Your task to perform on an android device: turn pop-ups off in chrome Image 0: 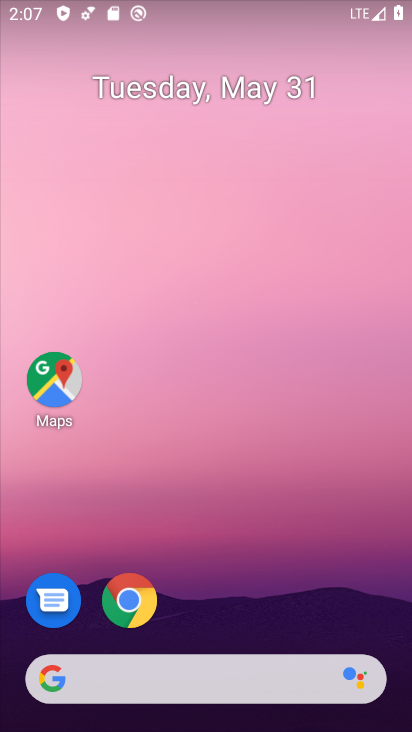
Step 0: click (125, 591)
Your task to perform on an android device: turn pop-ups off in chrome Image 1: 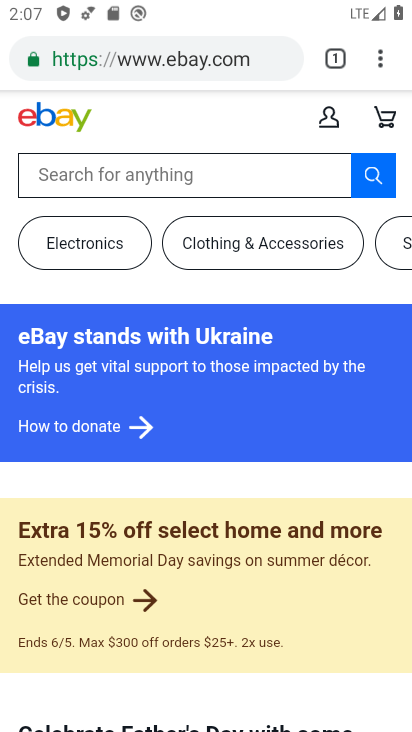
Step 1: click (338, 57)
Your task to perform on an android device: turn pop-ups off in chrome Image 2: 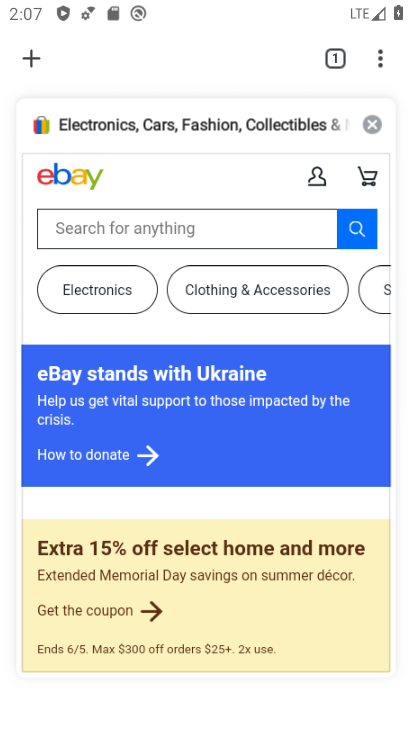
Step 2: click (366, 122)
Your task to perform on an android device: turn pop-ups off in chrome Image 3: 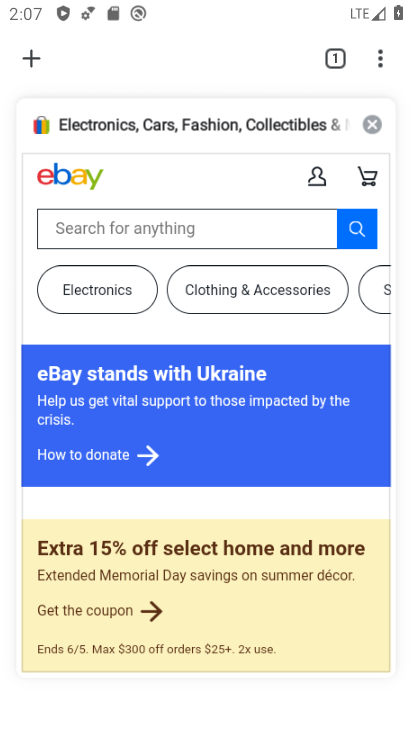
Step 3: click (24, 63)
Your task to perform on an android device: turn pop-ups off in chrome Image 4: 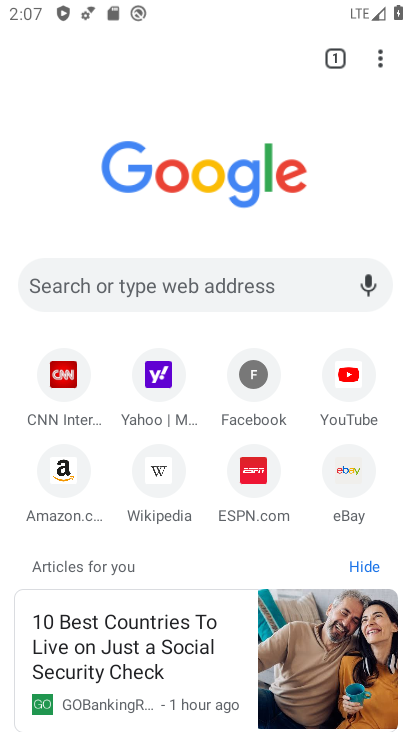
Step 4: click (375, 59)
Your task to perform on an android device: turn pop-ups off in chrome Image 5: 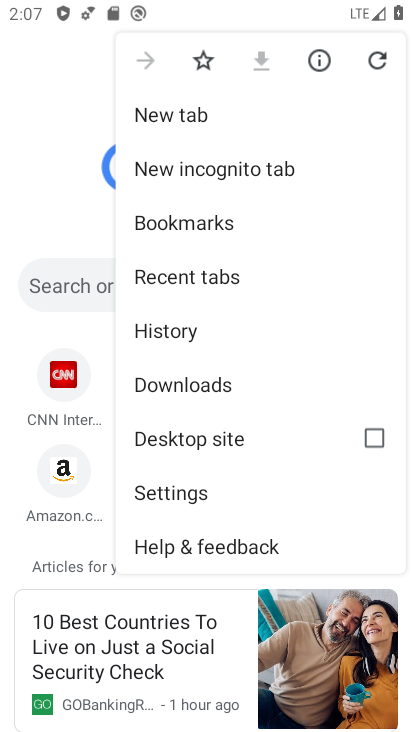
Step 5: click (226, 491)
Your task to perform on an android device: turn pop-ups off in chrome Image 6: 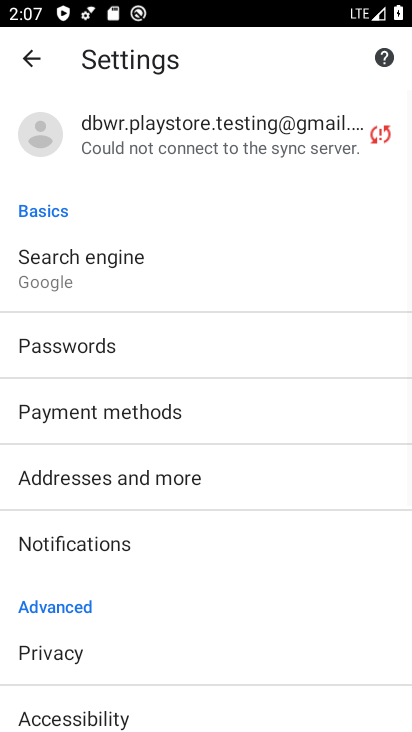
Step 6: drag from (137, 646) to (211, 100)
Your task to perform on an android device: turn pop-ups off in chrome Image 7: 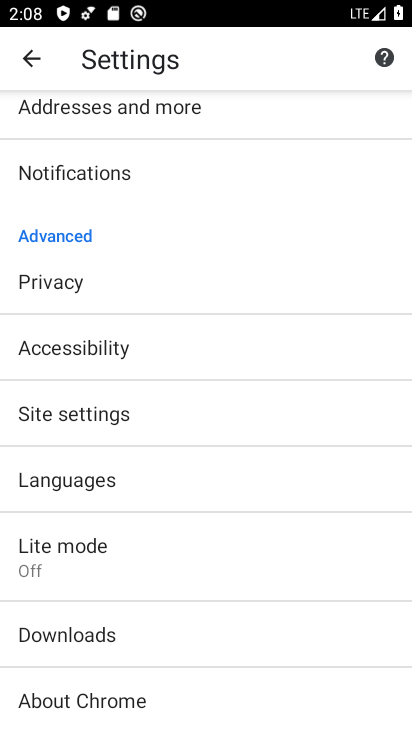
Step 7: click (147, 406)
Your task to perform on an android device: turn pop-ups off in chrome Image 8: 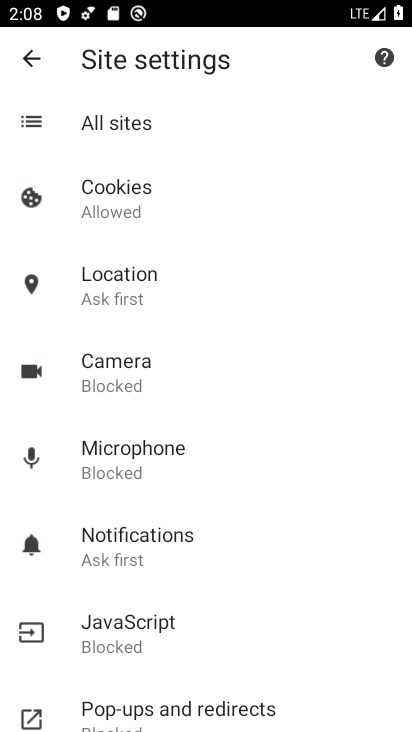
Step 8: click (215, 693)
Your task to perform on an android device: turn pop-ups off in chrome Image 9: 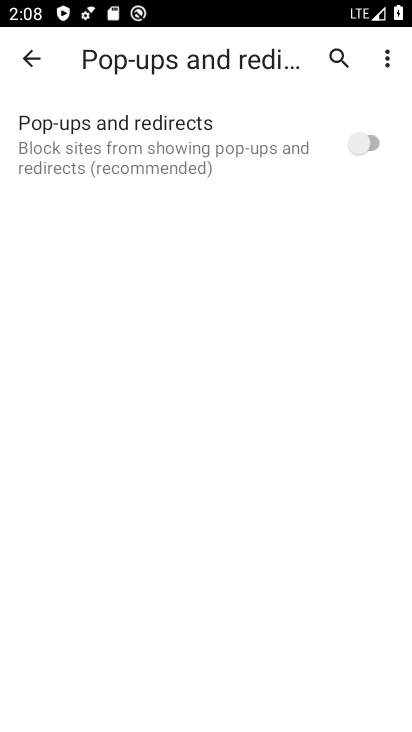
Step 9: task complete